Your task to perform on an android device: See recent photos Image 0: 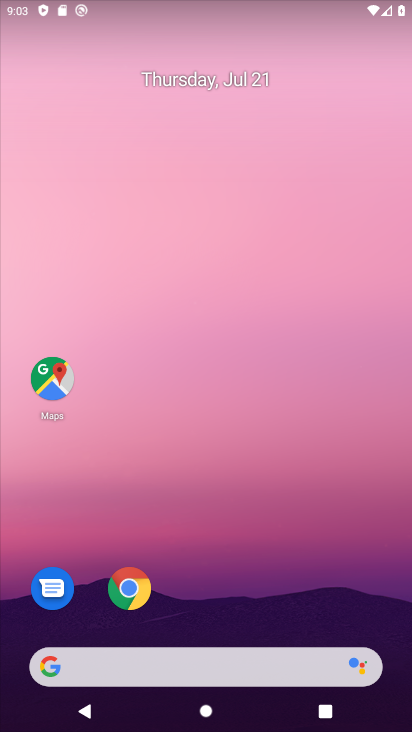
Step 0: drag from (409, 704) to (227, 81)
Your task to perform on an android device: See recent photos Image 1: 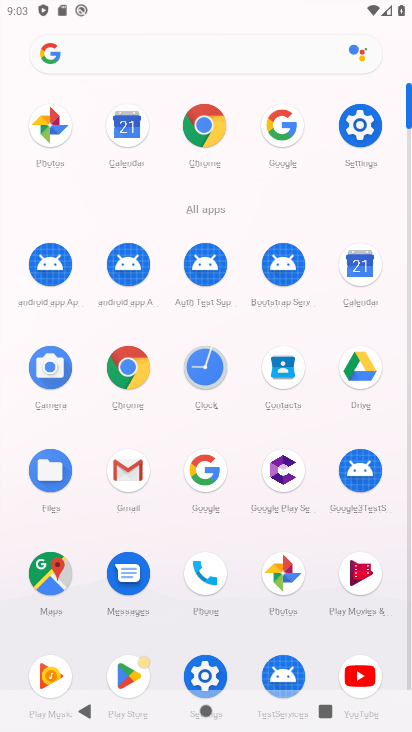
Step 1: click (316, 557)
Your task to perform on an android device: See recent photos Image 2: 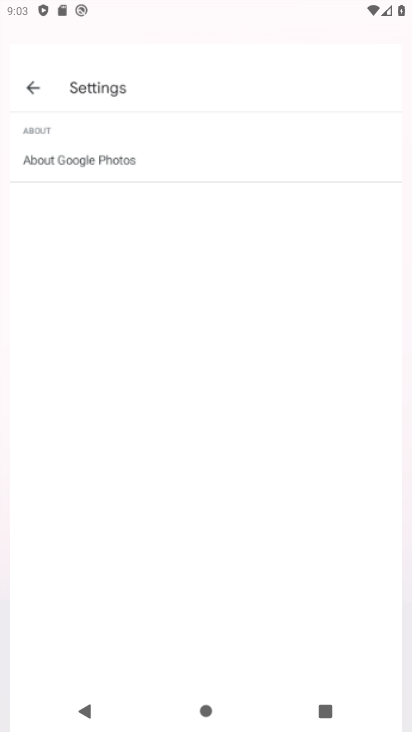
Step 2: click (271, 586)
Your task to perform on an android device: See recent photos Image 3: 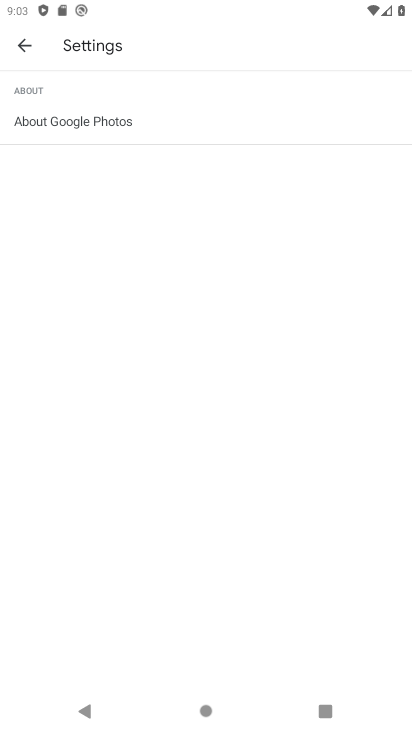
Step 3: click (25, 45)
Your task to perform on an android device: See recent photos Image 4: 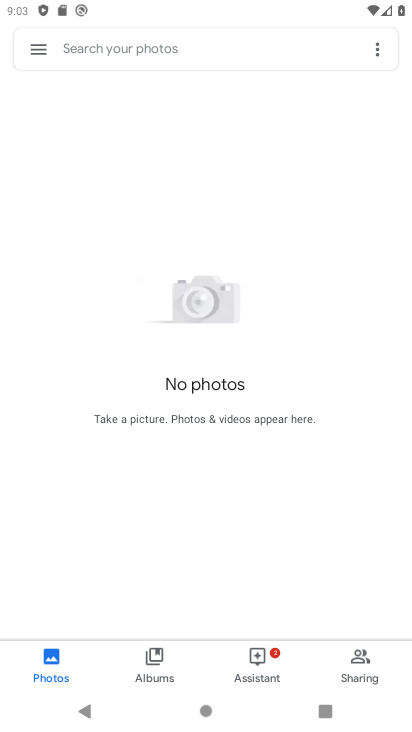
Step 4: task complete